Your task to perform on an android device: visit the assistant section in the google photos Image 0: 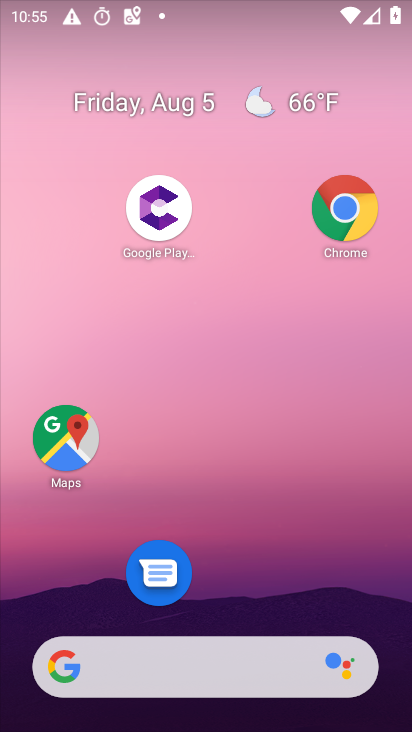
Step 0: press home button
Your task to perform on an android device: visit the assistant section in the google photos Image 1: 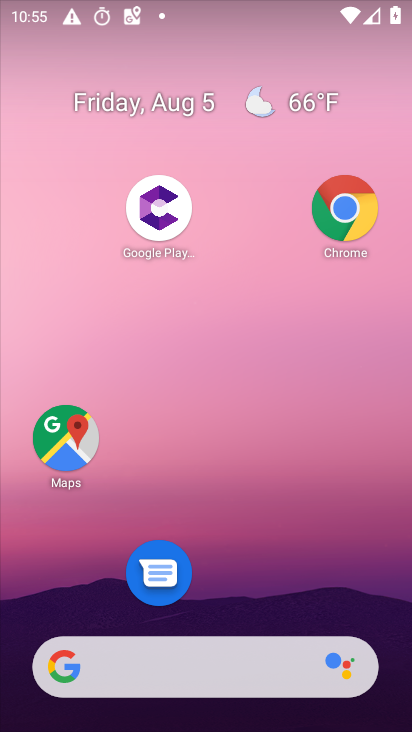
Step 1: drag from (234, 607) to (246, 21)
Your task to perform on an android device: visit the assistant section in the google photos Image 2: 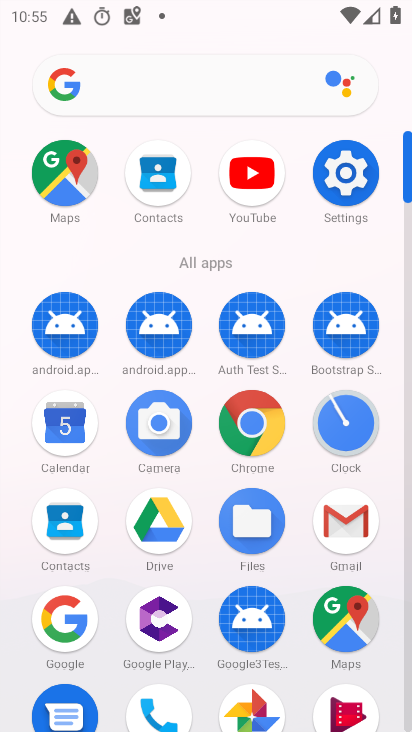
Step 2: drag from (204, 581) to (209, 182)
Your task to perform on an android device: visit the assistant section in the google photos Image 3: 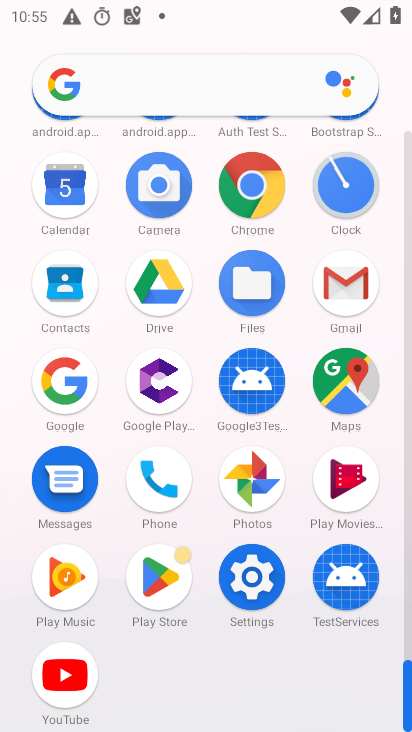
Step 3: click (251, 470)
Your task to perform on an android device: visit the assistant section in the google photos Image 4: 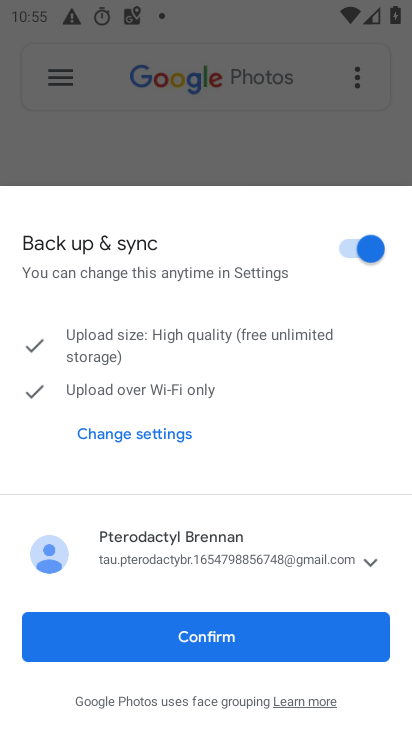
Step 4: click (221, 150)
Your task to perform on an android device: visit the assistant section in the google photos Image 5: 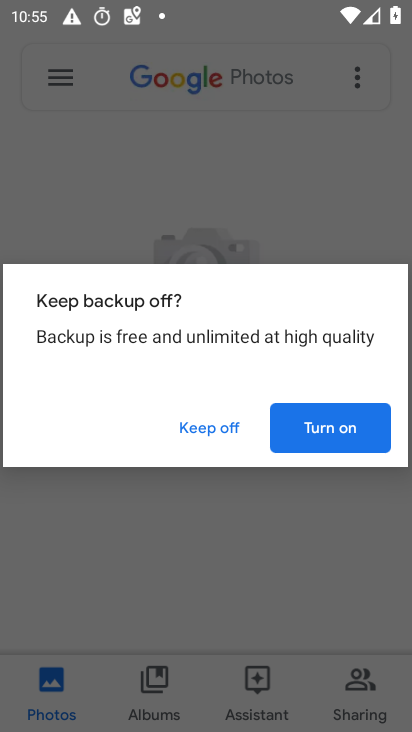
Step 5: click (217, 429)
Your task to perform on an android device: visit the assistant section in the google photos Image 6: 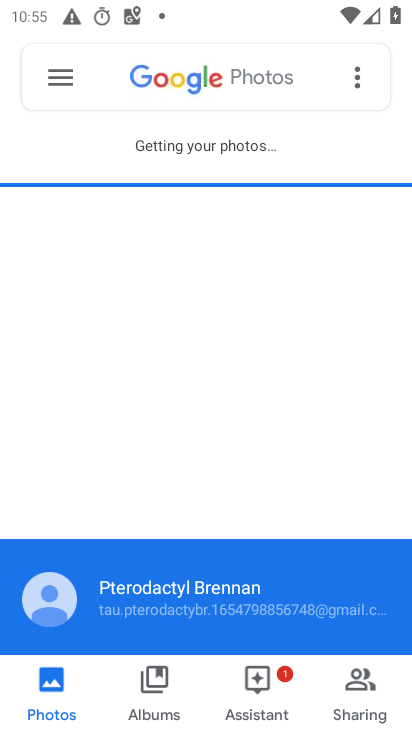
Step 6: click (257, 678)
Your task to perform on an android device: visit the assistant section in the google photos Image 7: 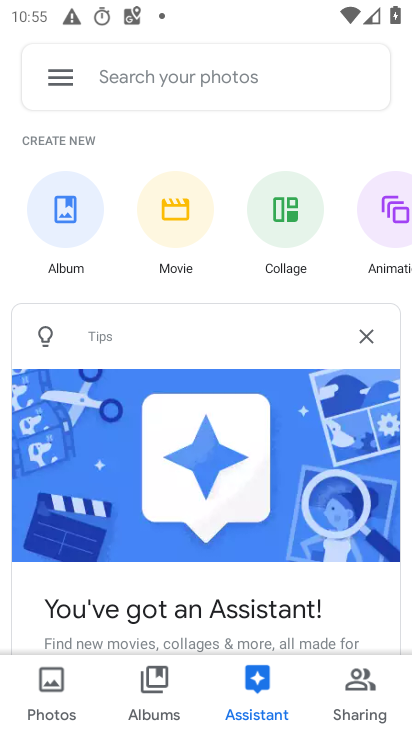
Step 7: task complete